Your task to perform on an android device: What is the news today? Image 0: 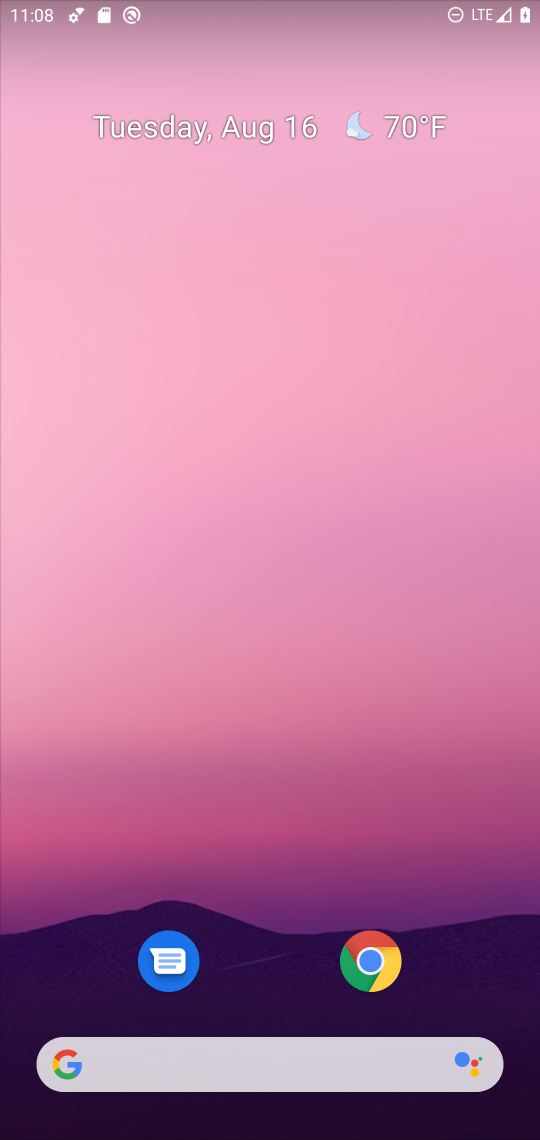
Step 0: click (320, 1087)
Your task to perform on an android device: What is the news today? Image 1: 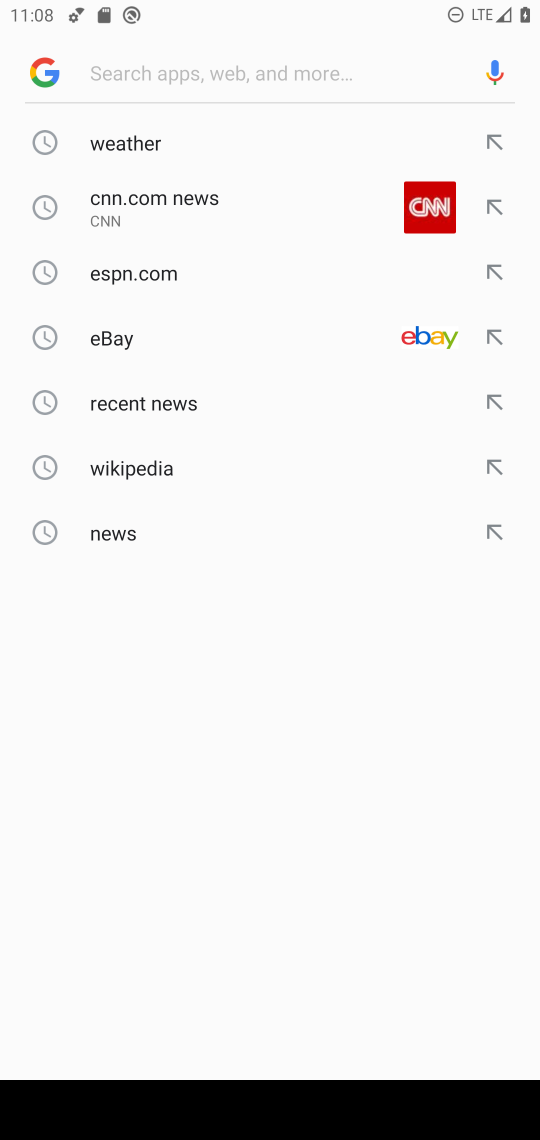
Step 1: click (127, 524)
Your task to perform on an android device: What is the news today? Image 2: 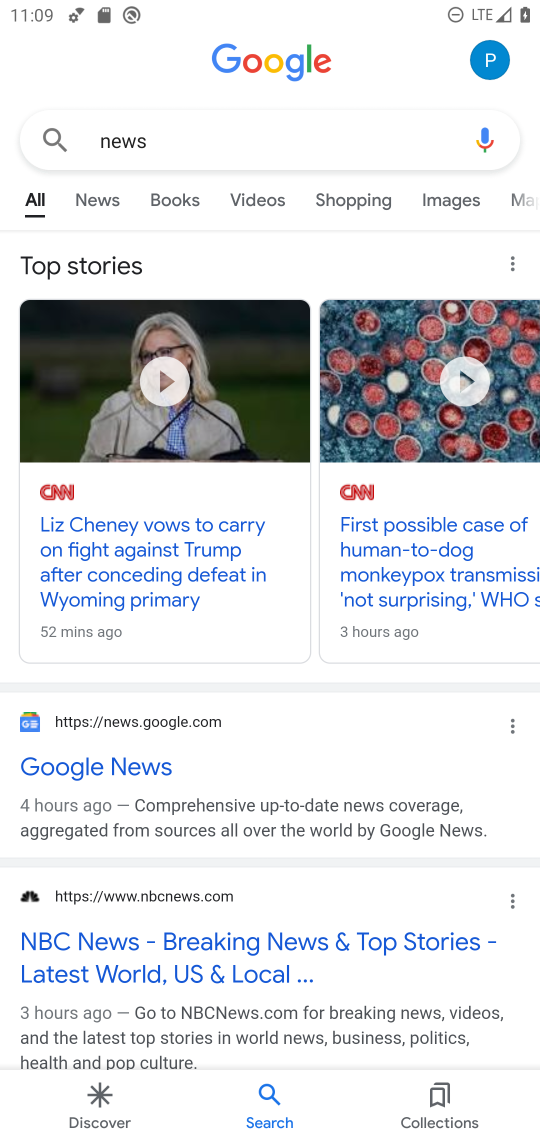
Step 2: task complete